Your task to perform on an android device: Go to network settings Image 0: 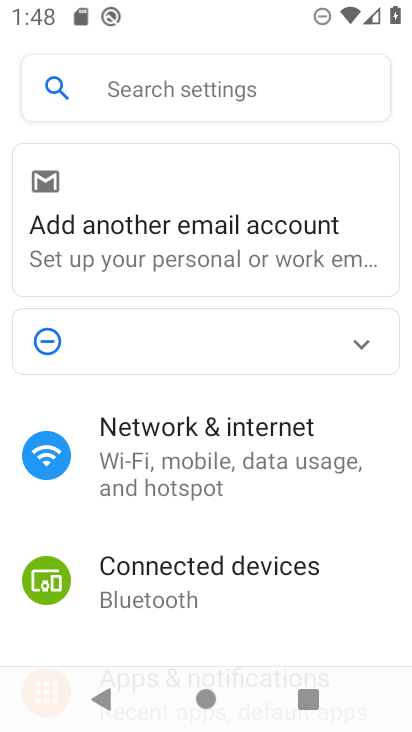
Step 0: click (283, 451)
Your task to perform on an android device: Go to network settings Image 1: 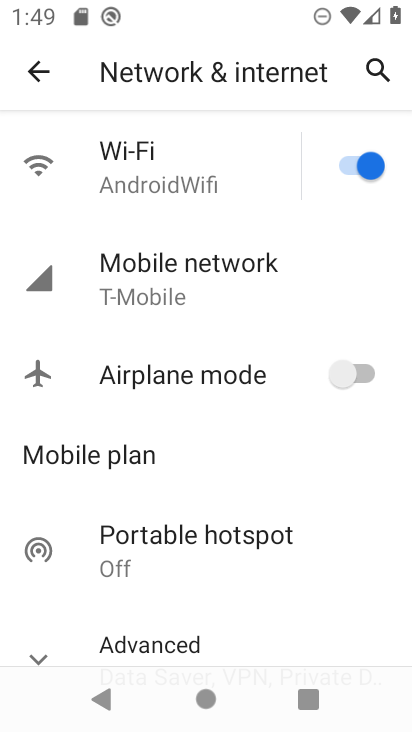
Step 1: task complete